Your task to perform on an android device: star an email in the gmail app Image 0: 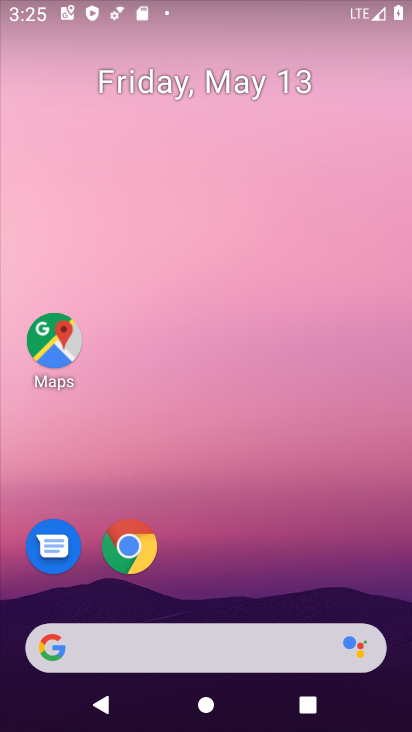
Step 0: drag from (193, 602) to (252, 60)
Your task to perform on an android device: star an email in the gmail app Image 1: 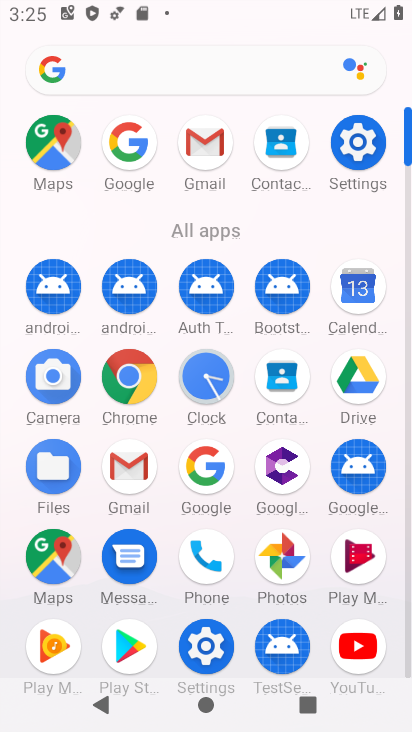
Step 1: click (222, 114)
Your task to perform on an android device: star an email in the gmail app Image 2: 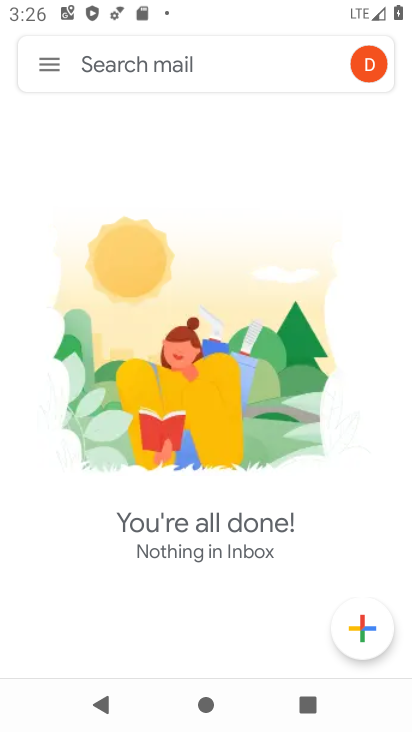
Step 2: task complete